Your task to perform on an android device: open chrome privacy settings Image 0: 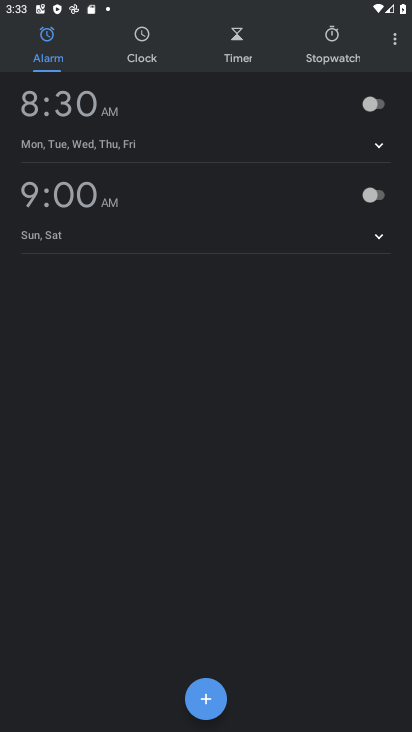
Step 0: press home button
Your task to perform on an android device: open chrome privacy settings Image 1: 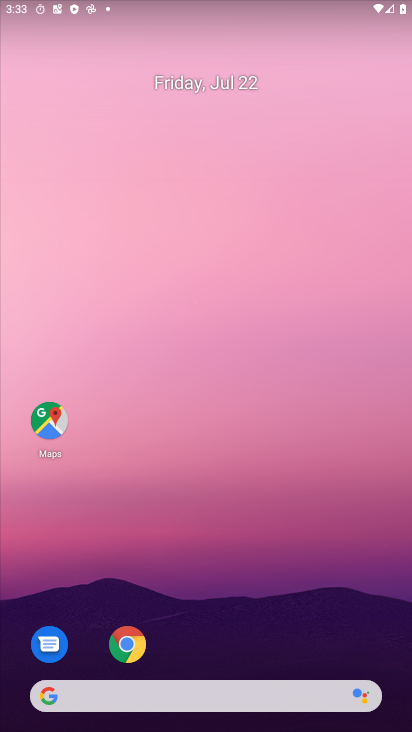
Step 1: drag from (235, 656) to (228, 23)
Your task to perform on an android device: open chrome privacy settings Image 2: 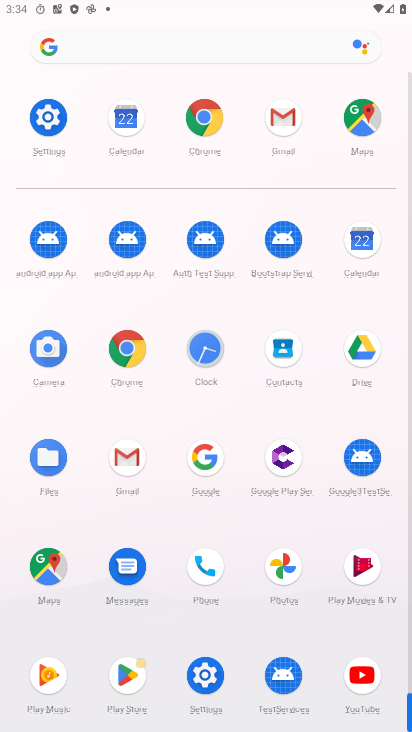
Step 2: click (61, 134)
Your task to perform on an android device: open chrome privacy settings Image 3: 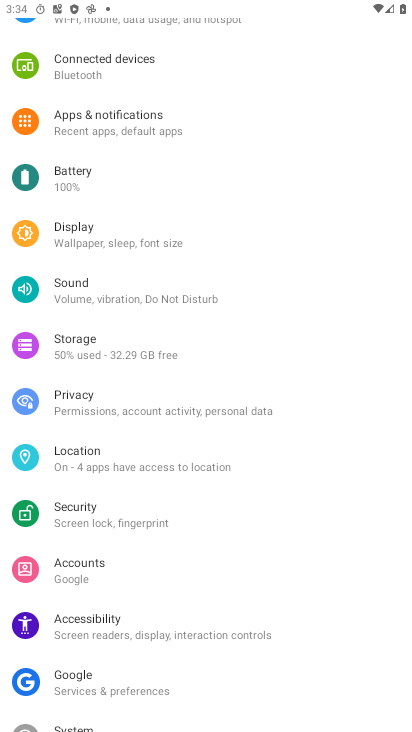
Step 3: click (98, 403)
Your task to perform on an android device: open chrome privacy settings Image 4: 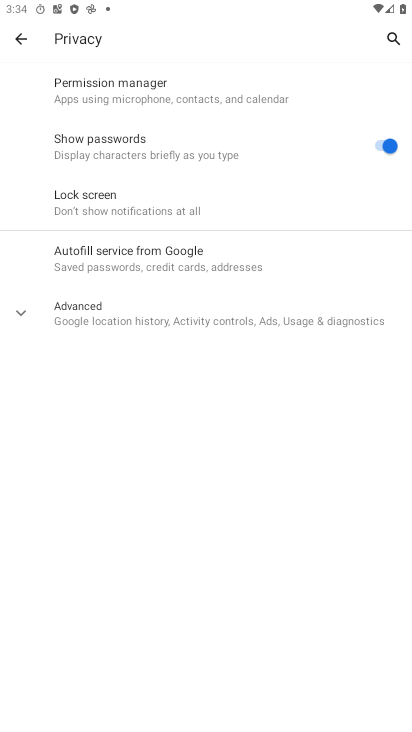
Step 4: task complete